Your task to perform on an android device: Go to Maps Image 0: 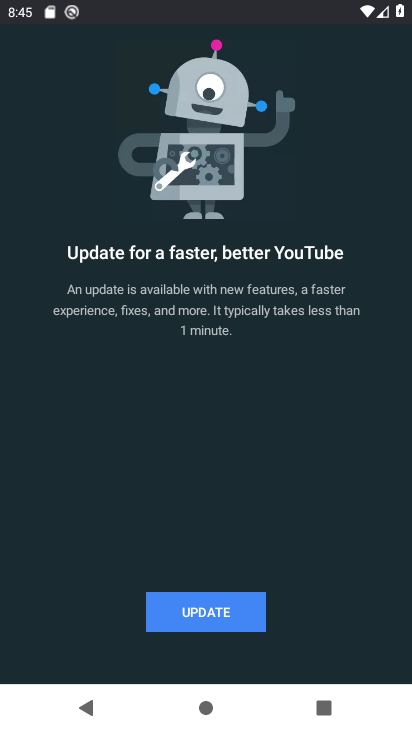
Step 0: click (404, 408)
Your task to perform on an android device: Go to Maps Image 1: 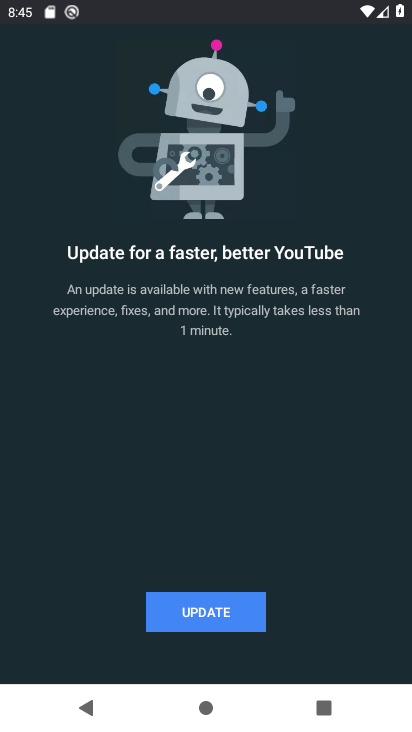
Step 1: press home button
Your task to perform on an android device: Go to Maps Image 2: 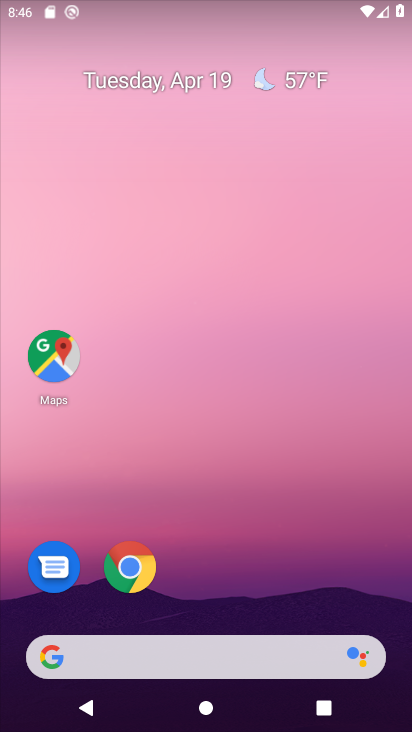
Step 2: click (55, 342)
Your task to perform on an android device: Go to Maps Image 3: 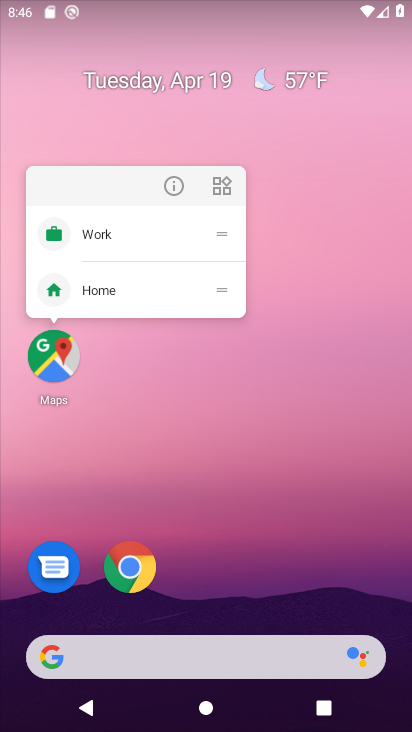
Step 3: click (55, 342)
Your task to perform on an android device: Go to Maps Image 4: 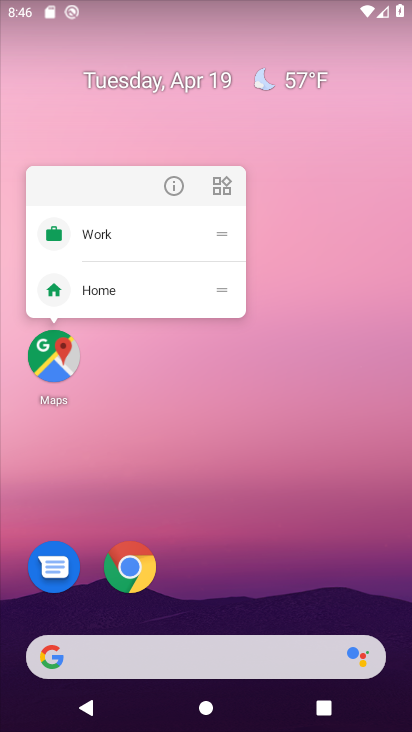
Step 4: click (65, 384)
Your task to perform on an android device: Go to Maps Image 5: 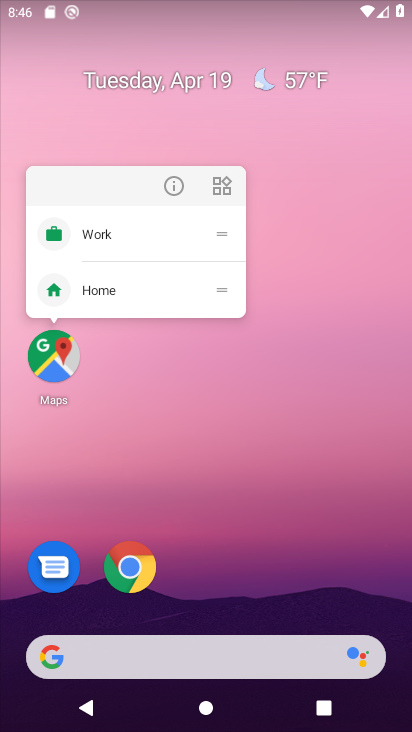
Step 5: click (48, 352)
Your task to perform on an android device: Go to Maps Image 6: 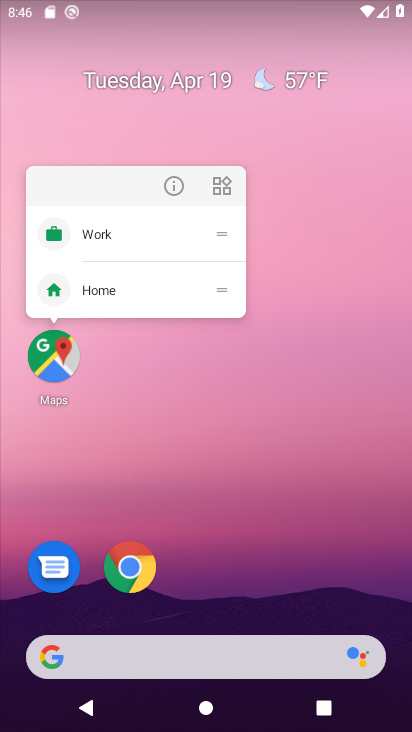
Step 6: click (59, 363)
Your task to perform on an android device: Go to Maps Image 7: 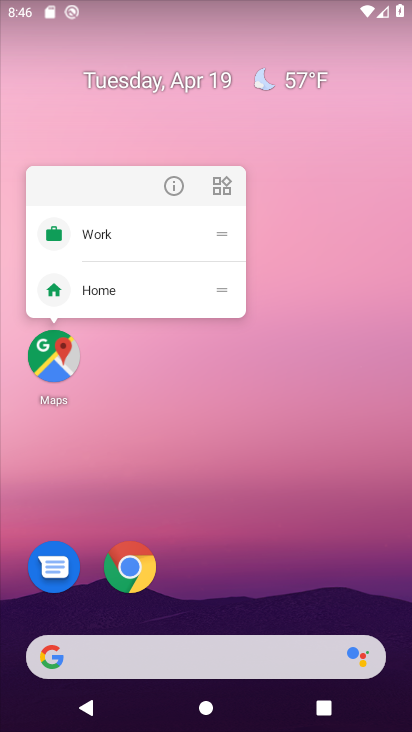
Step 7: click (50, 387)
Your task to perform on an android device: Go to Maps Image 8: 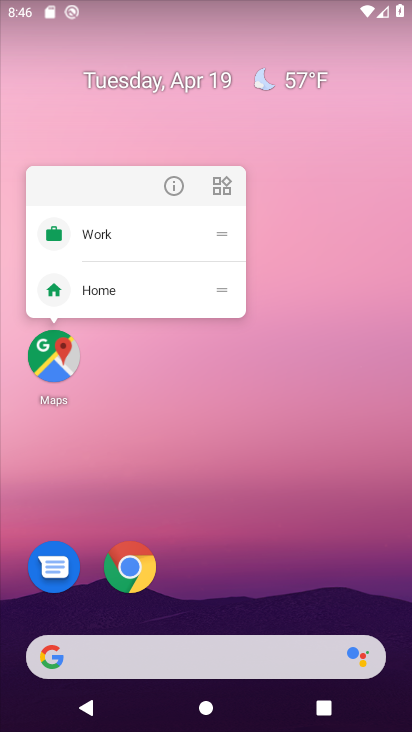
Step 8: click (63, 368)
Your task to perform on an android device: Go to Maps Image 9: 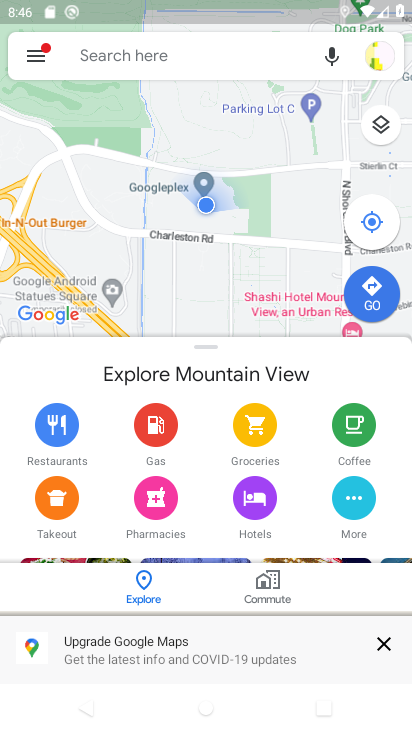
Step 9: task complete